Your task to perform on an android device: search for starred emails in the gmail app Image 0: 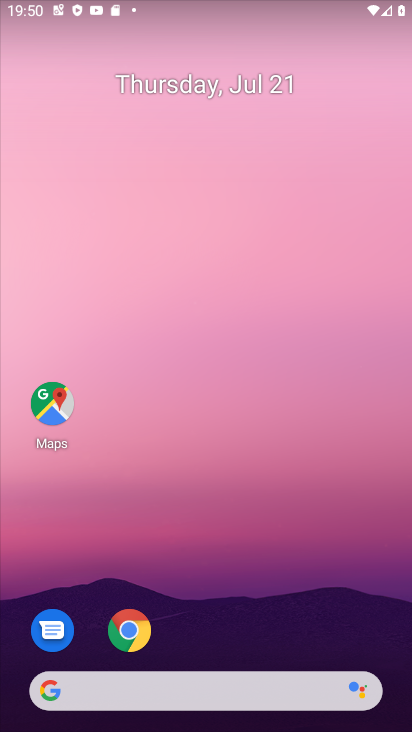
Step 0: drag from (262, 731) to (236, 69)
Your task to perform on an android device: search for starred emails in the gmail app Image 1: 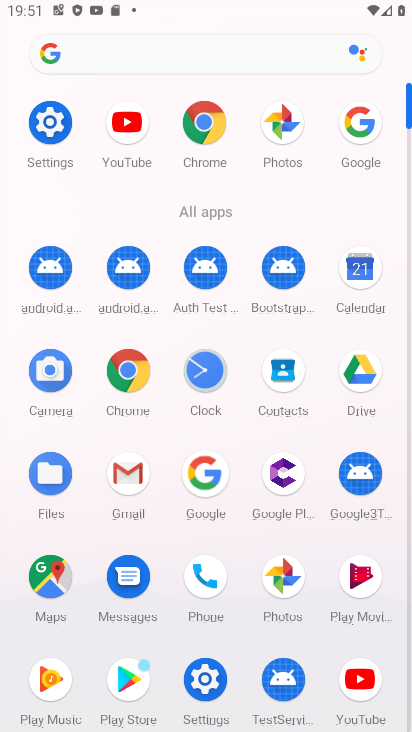
Step 1: click (135, 463)
Your task to perform on an android device: search for starred emails in the gmail app Image 2: 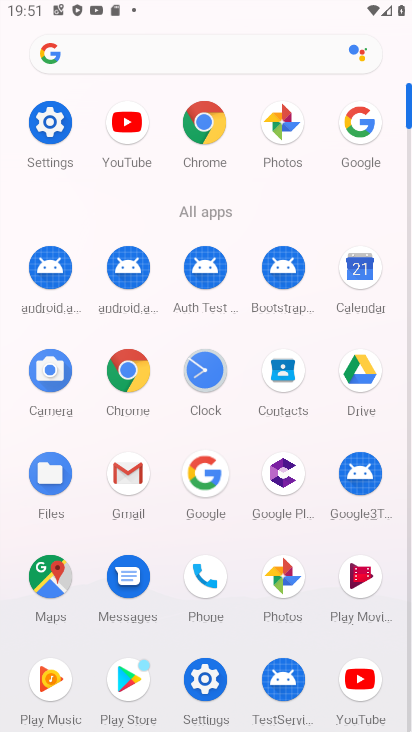
Step 2: click (135, 463)
Your task to perform on an android device: search for starred emails in the gmail app Image 3: 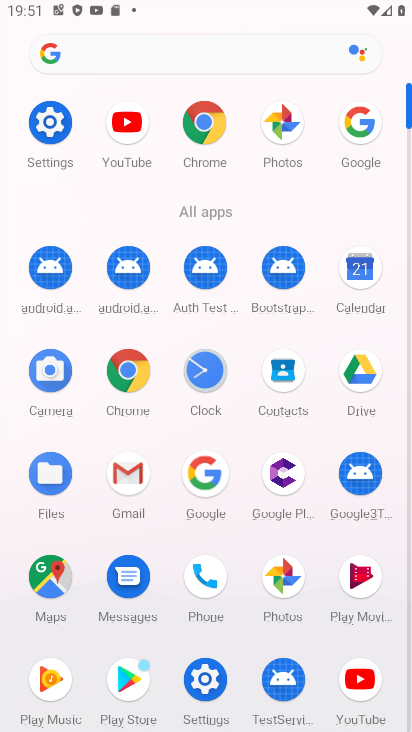
Step 3: click (135, 463)
Your task to perform on an android device: search for starred emails in the gmail app Image 4: 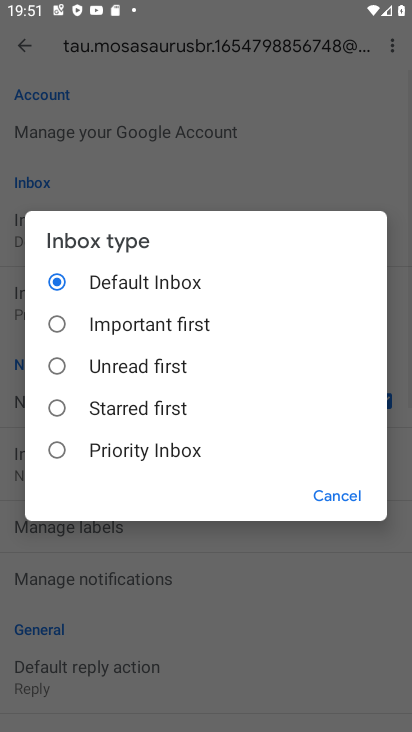
Step 4: click (300, 150)
Your task to perform on an android device: search for starred emails in the gmail app Image 5: 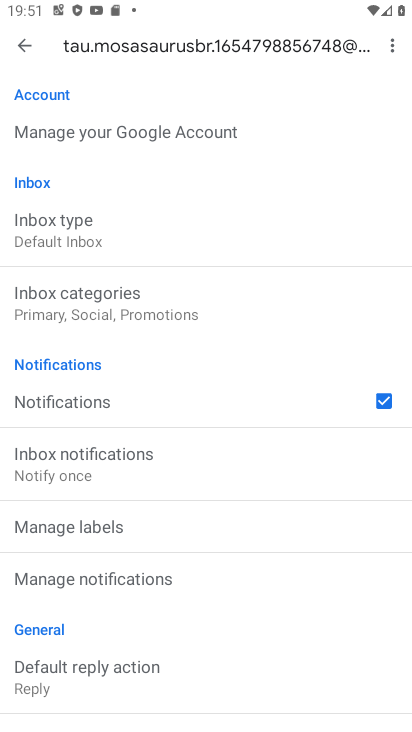
Step 5: click (25, 38)
Your task to perform on an android device: search for starred emails in the gmail app Image 6: 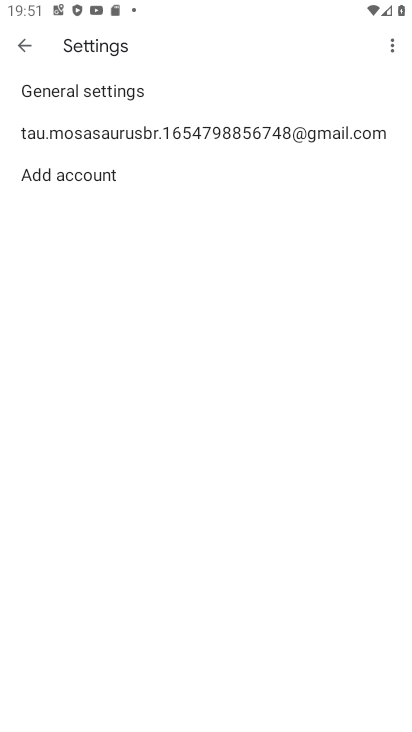
Step 6: click (25, 38)
Your task to perform on an android device: search for starred emails in the gmail app Image 7: 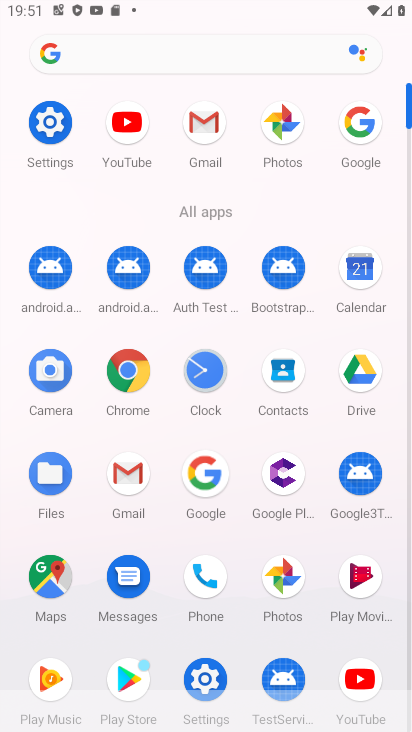
Step 7: click (208, 121)
Your task to perform on an android device: search for starred emails in the gmail app Image 8: 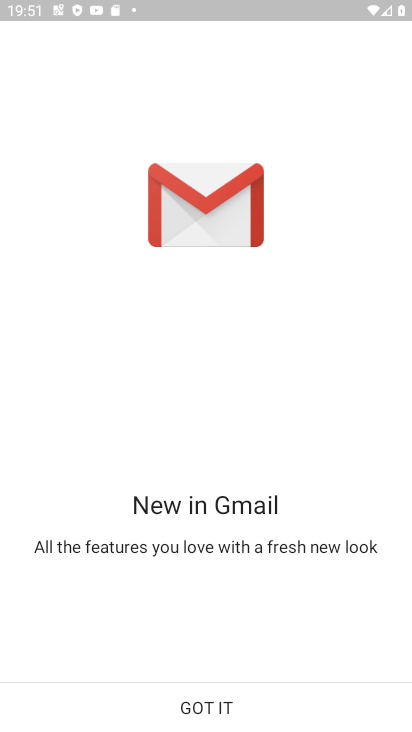
Step 8: click (152, 707)
Your task to perform on an android device: search for starred emails in the gmail app Image 9: 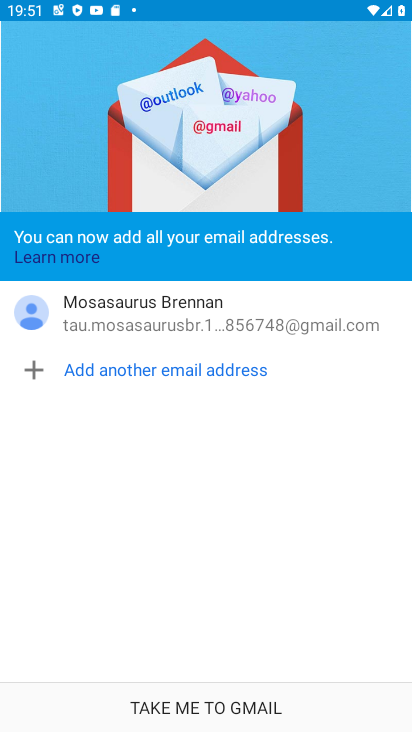
Step 9: click (152, 707)
Your task to perform on an android device: search for starred emails in the gmail app Image 10: 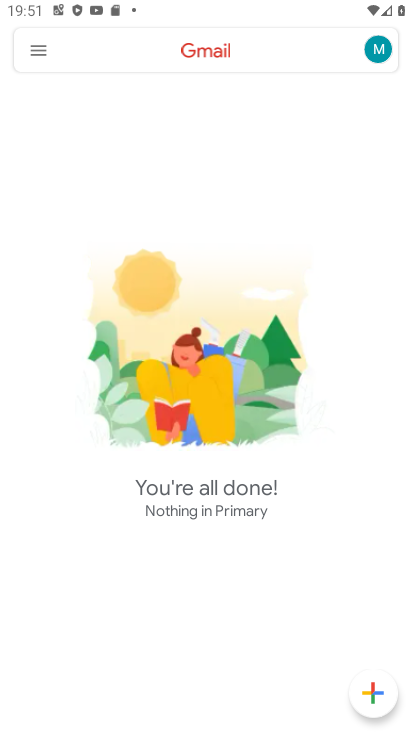
Step 10: click (29, 49)
Your task to perform on an android device: search for starred emails in the gmail app Image 11: 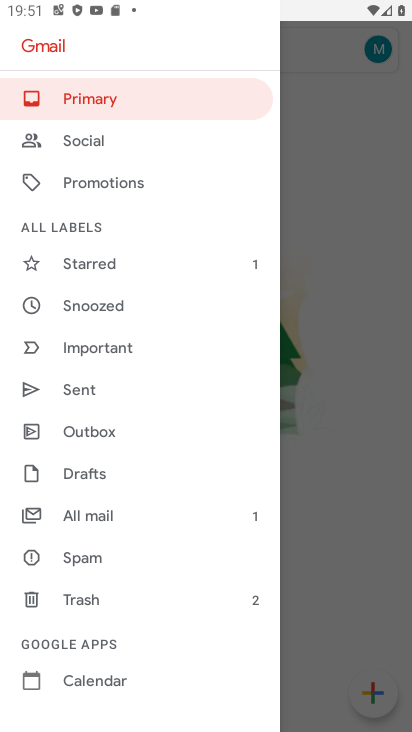
Step 11: click (87, 259)
Your task to perform on an android device: search for starred emails in the gmail app Image 12: 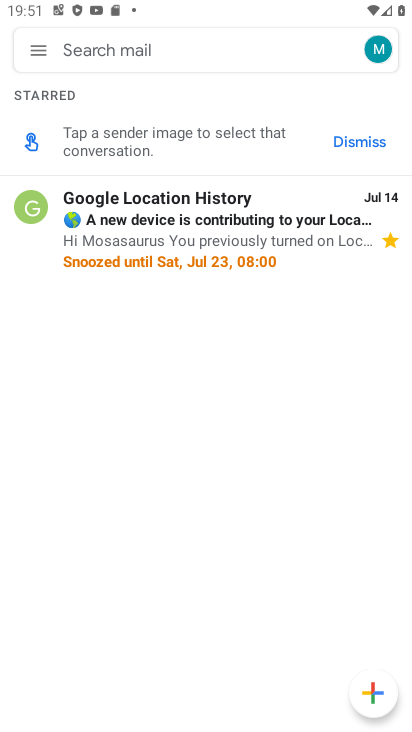
Step 12: task complete